Your task to perform on an android device: turn off translation in the chrome app Image 0: 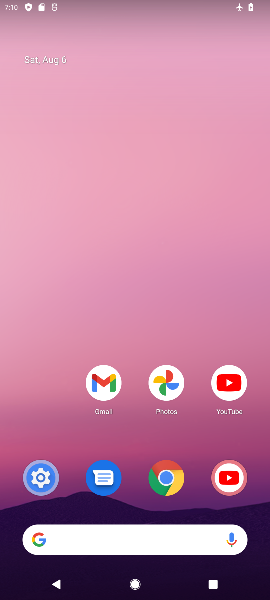
Step 0: press home button
Your task to perform on an android device: turn off translation in the chrome app Image 1: 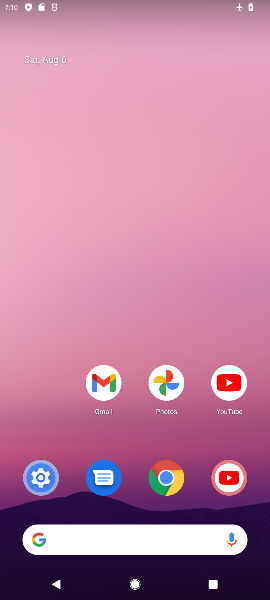
Step 1: press home button
Your task to perform on an android device: turn off translation in the chrome app Image 2: 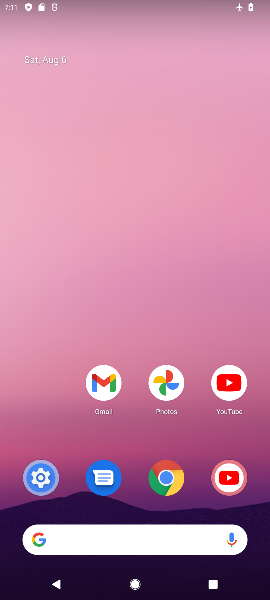
Step 2: click (169, 473)
Your task to perform on an android device: turn off translation in the chrome app Image 3: 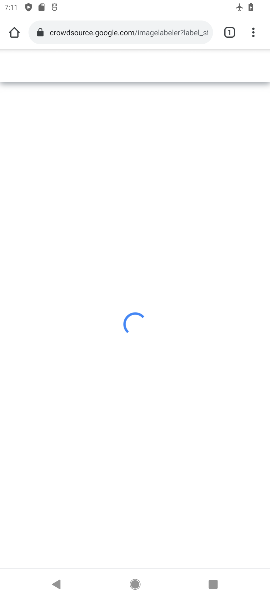
Step 3: drag from (252, 28) to (167, 396)
Your task to perform on an android device: turn off translation in the chrome app Image 4: 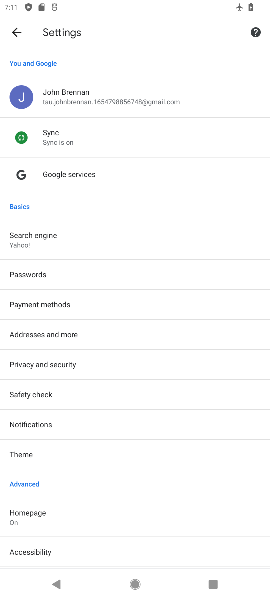
Step 4: drag from (119, 486) to (110, 202)
Your task to perform on an android device: turn off translation in the chrome app Image 5: 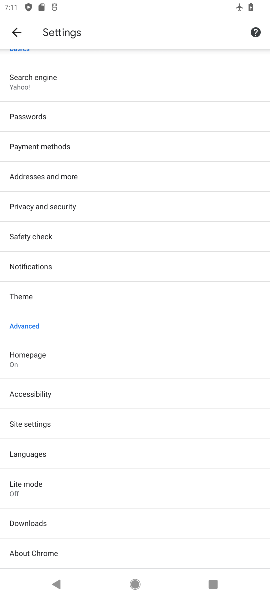
Step 5: click (32, 457)
Your task to perform on an android device: turn off translation in the chrome app Image 6: 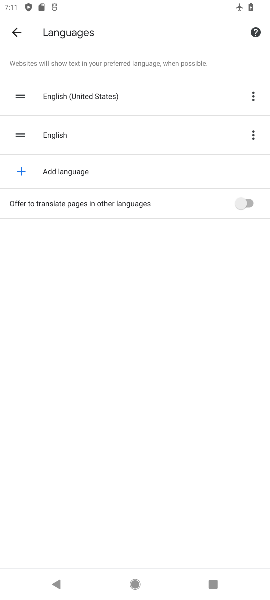
Step 6: task complete